Your task to perform on an android device: see tabs open on other devices in the chrome app Image 0: 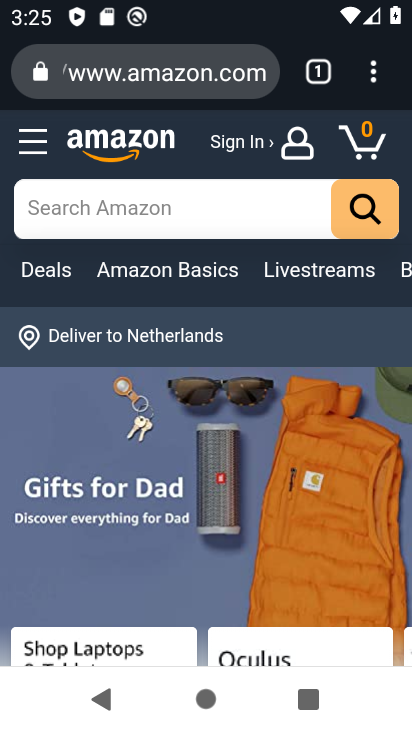
Step 0: click (374, 76)
Your task to perform on an android device: see tabs open on other devices in the chrome app Image 1: 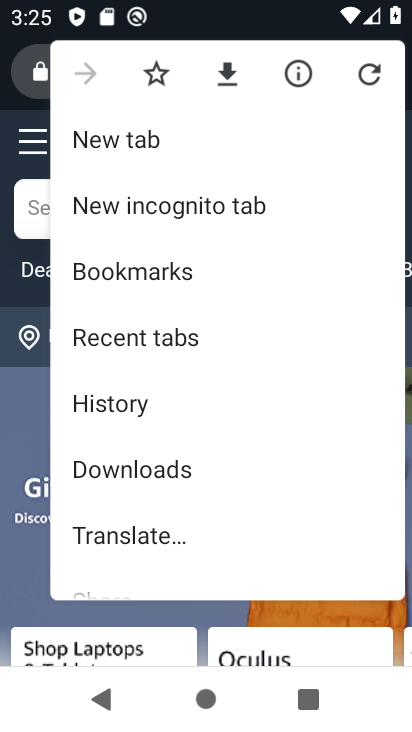
Step 1: click (135, 339)
Your task to perform on an android device: see tabs open on other devices in the chrome app Image 2: 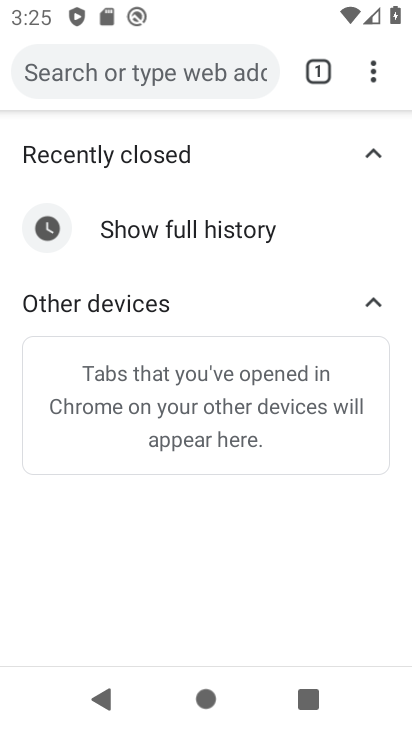
Step 2: task complete